Your task to perform on an android device: What is the news today? Image 0: 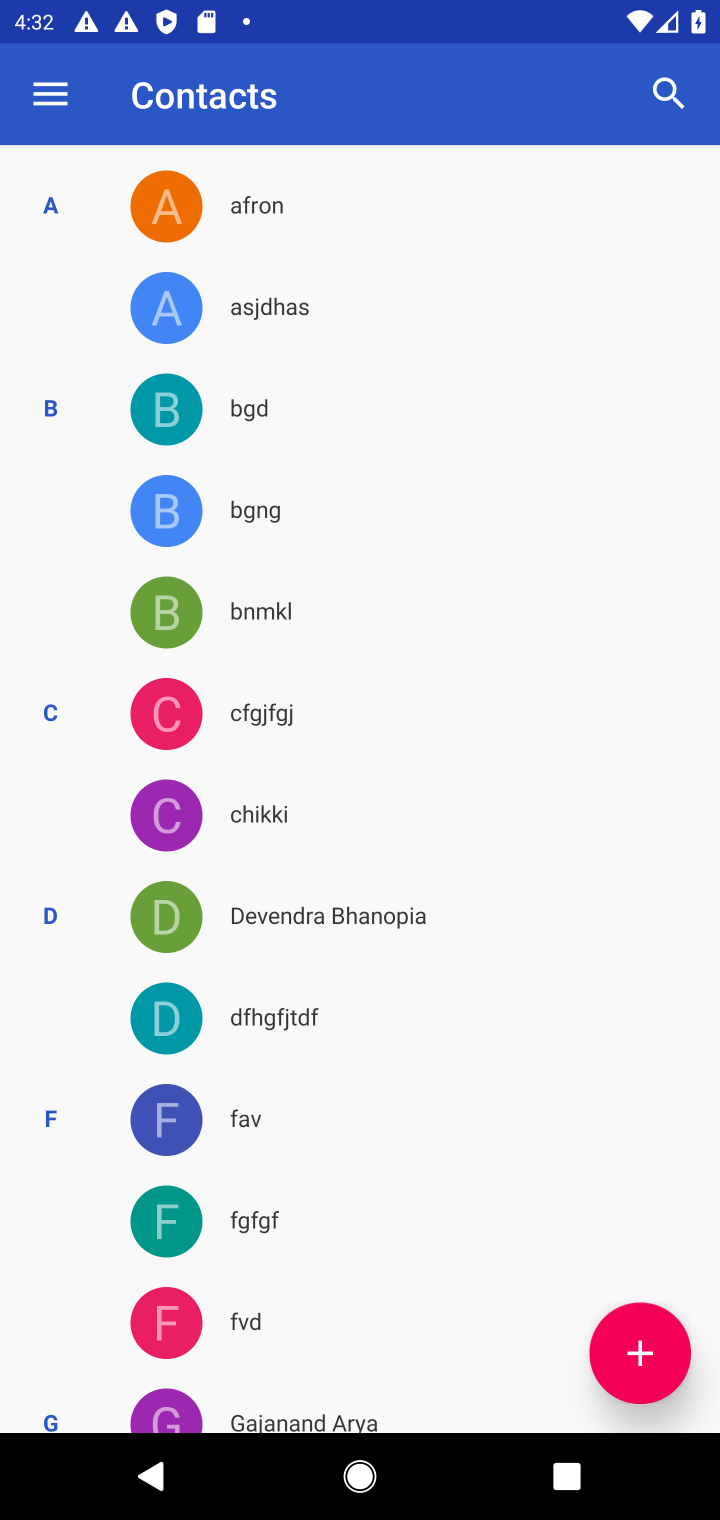
Step 0: press home button
Your task to perform on an android device: What is the news today? Image 1: 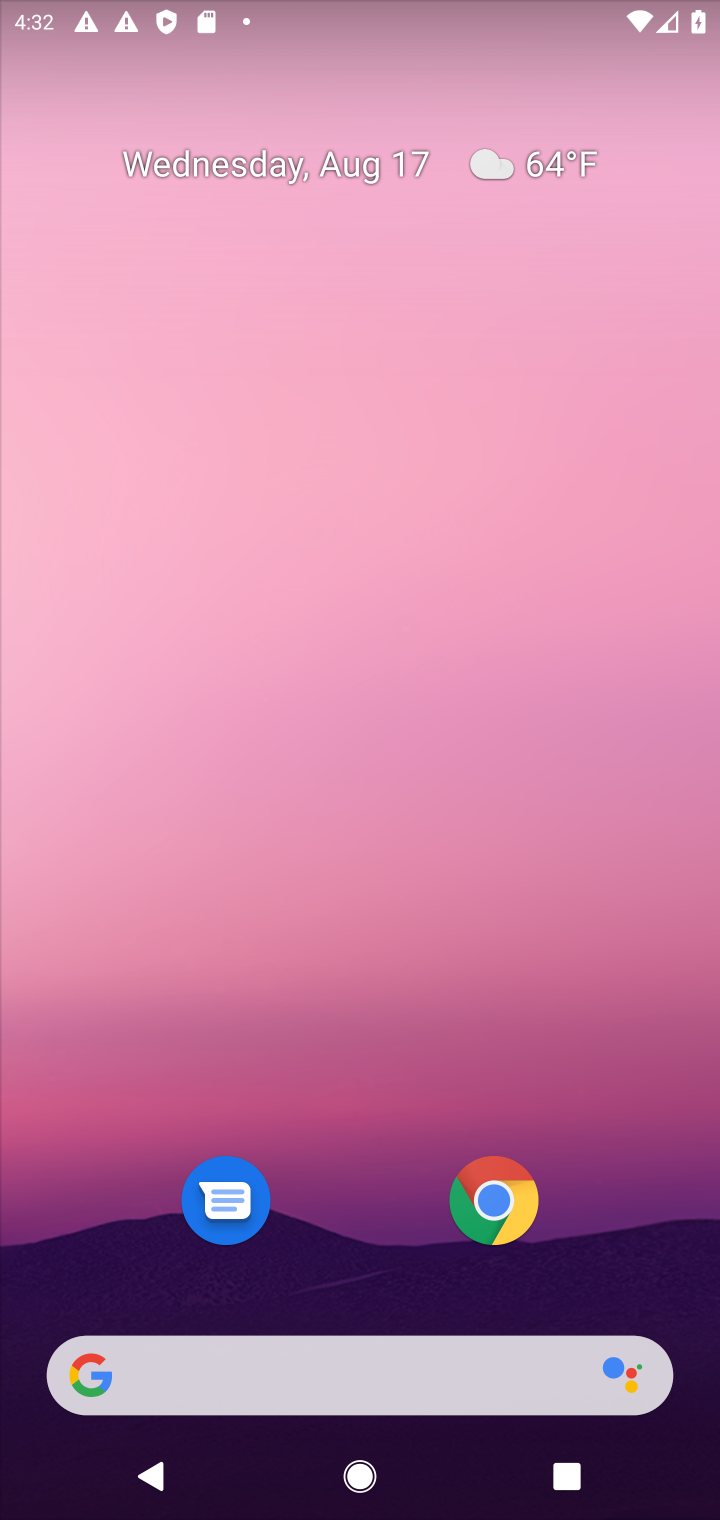
Step 1: task complete